Your task to perform on an android device: toggle airplane mode Image 0: 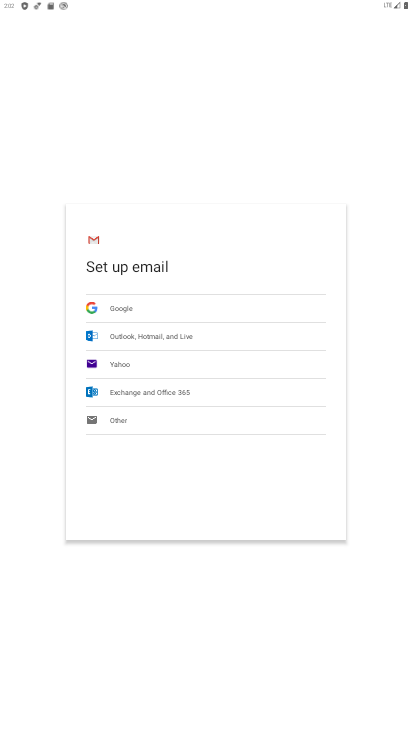
Step 0: press home button
Your task to perform on an android device: toggle airplane mode Image 1: 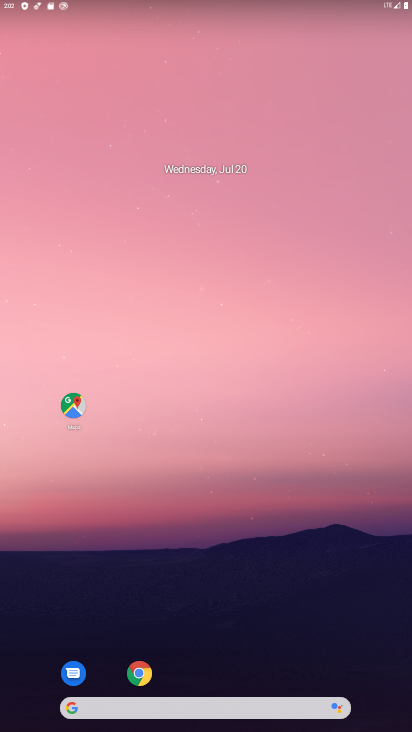
Step 1: drag from (336, 2) to (306, 664)
Your task to perform on an android device: toggle airplane mode Image 2: 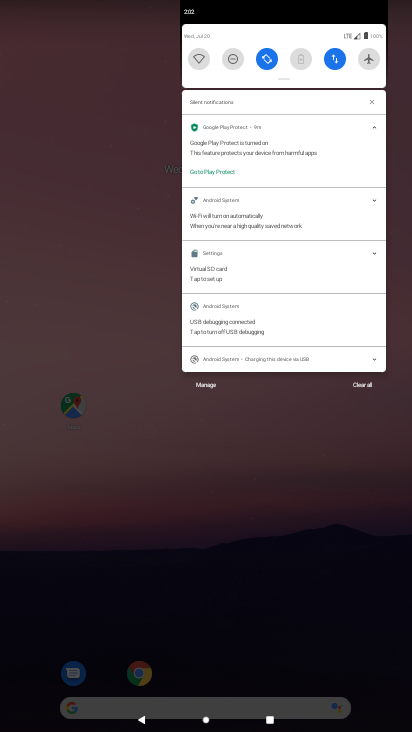
Step 2: click (369, 54)
Your task to perform on an android device: toggle airplane mode Image 3: 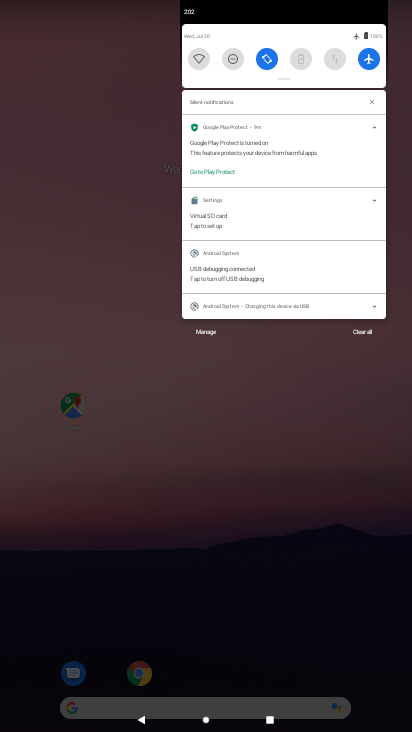
Step 3: task complete